Your task to perform on an android device: Open calendar and show me the third week of next month Image 0: 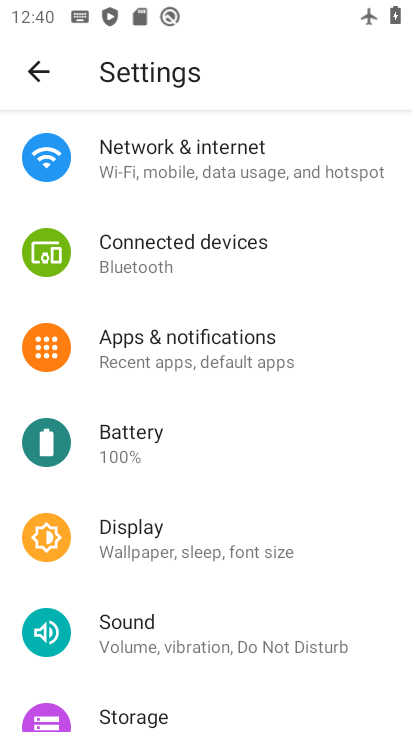
Step 0: press home button
Your task to perform on an android device: Open calendar and show me the third week of next month Image 1: 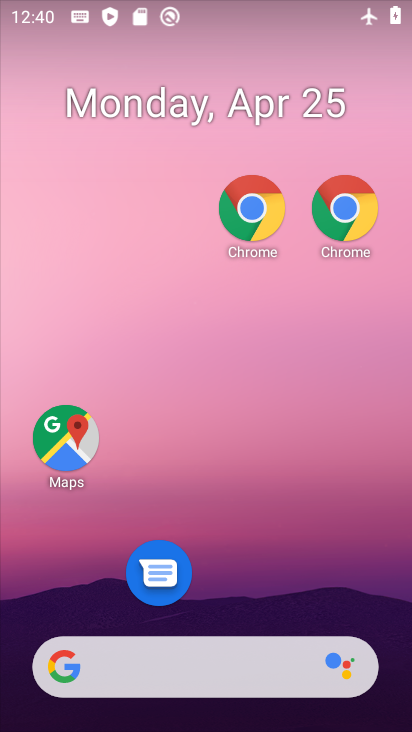
Step 1: drag from (281, 675) to (182, 15)
Your task to perform on an android device: Open calendar and show me the third week of next month Image 2: 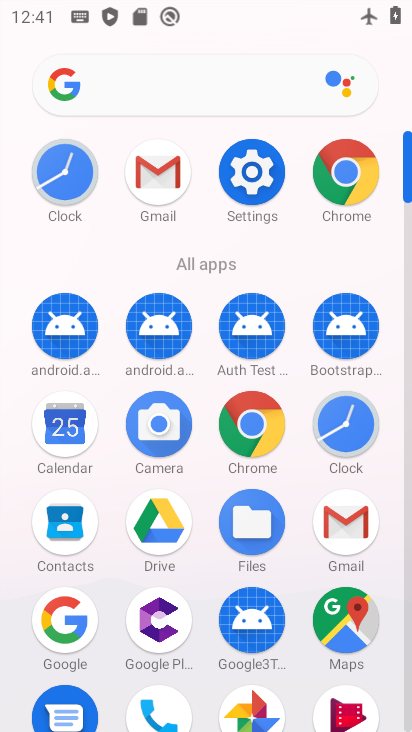
Step 2: click (62, 446)
Your task to perform on an android device: Open calendar and show me the third week of next month Image 3: 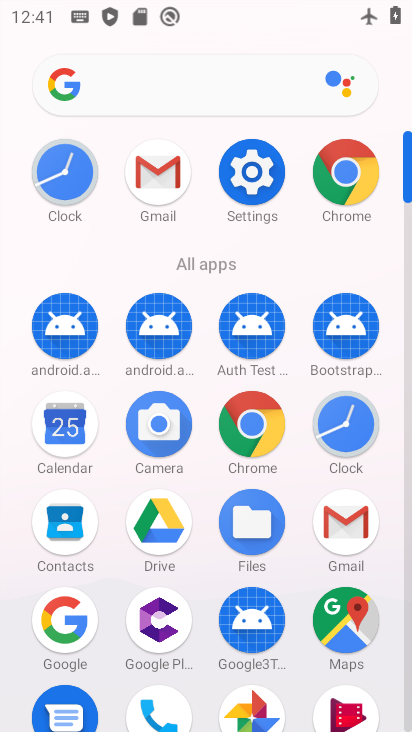
Step 3: click (62, 446)
Your task to perform on an android device: Open calendar and show me the third week of next month Image 4: 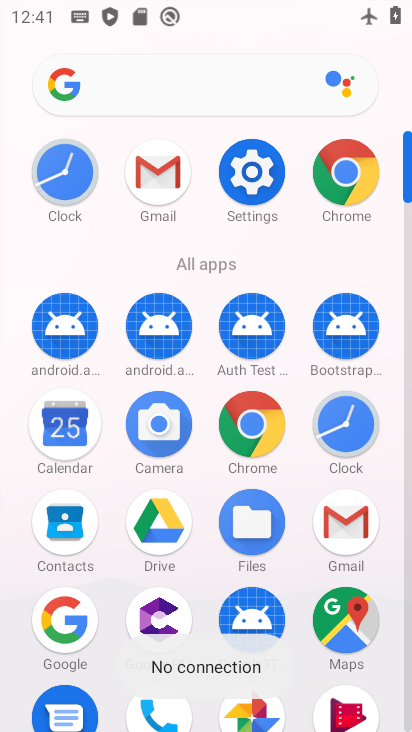
Step 4: click (66, 436)
Your task to perform on an android device: Open calendar and show me the third week of next month Image 5: 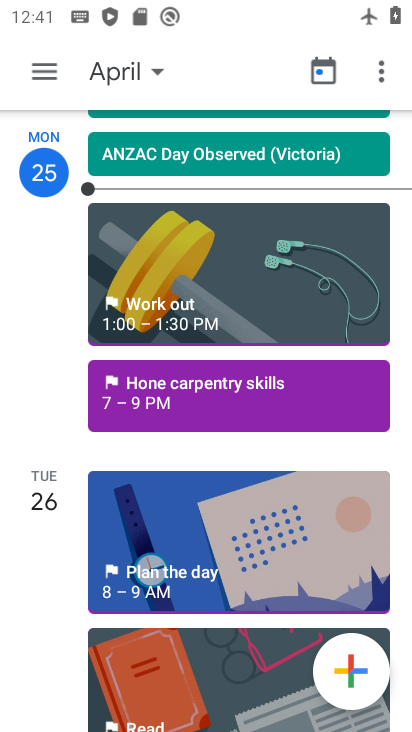
Step 5: drag from (156, 71) to (143, 500)
Your task to perform on an android device: Open calendar and show me the third week of next month Image 6: 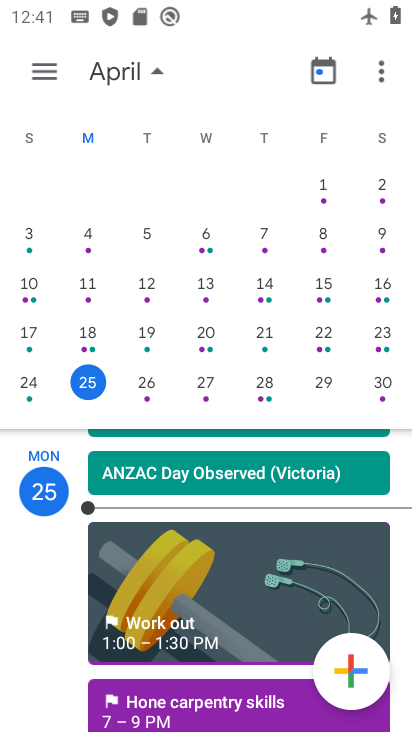
Step 6: drag from (266, 342) to (93, 363)
Your task to perform on an android device: Open calendar and show me the third week of next month Image 7: 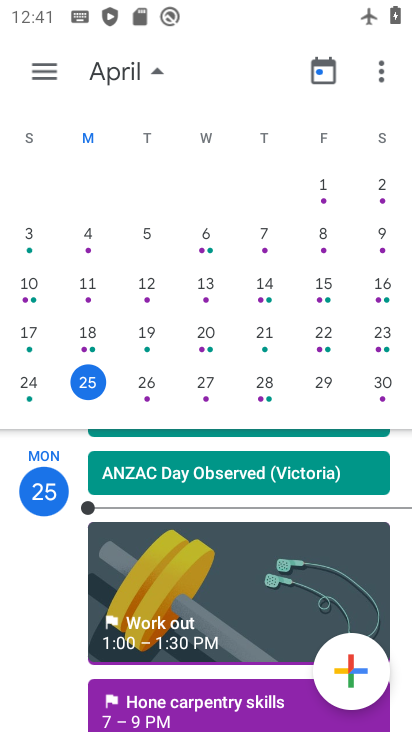
Step 7: drag from (277, 338) to (32, 373)
Your task to perform on an android device: Open calendar and show me the third week of next month Image 8: 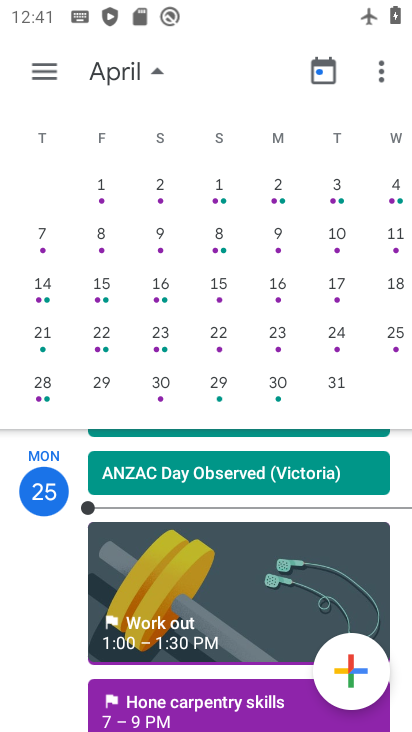
Step 8: drag from (247, 328) to (121, 403)
Your task to perform on an android device: Open calendar and show me the third week of next month Image 9: 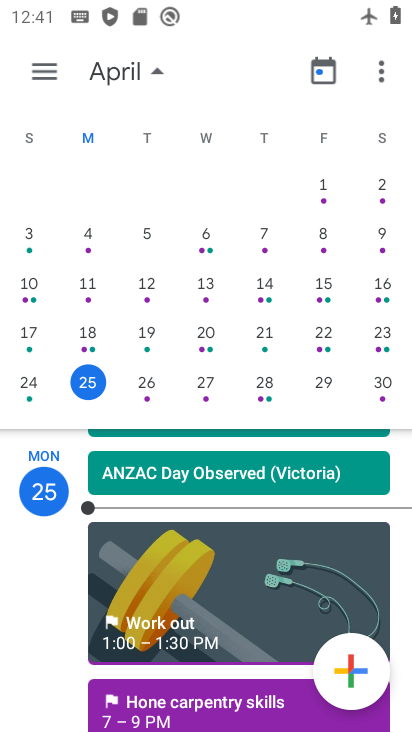
Step 9: drag from (174, 330) to (18, 339)
Your task to perform on an android device: Open calendar and show me the third week of next month Image 10: 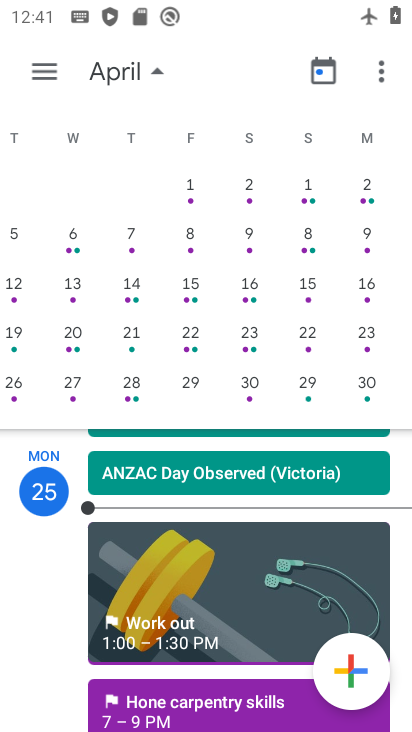
Step 10: drag from (213, 329) to (30, 382)
Your task to perform on an android device: Open calendar and show me the third week of next month Image 11: 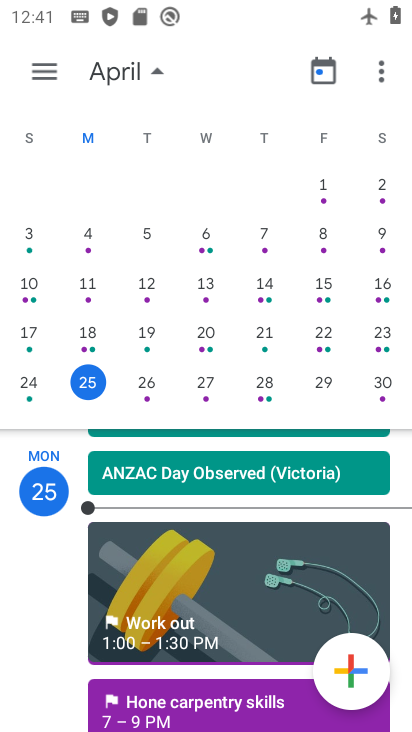
Step 11: drag from (194, 337) to (79, 393)
Your task to perform on an android device: Open calendar and show me the third week of next month Image 12: 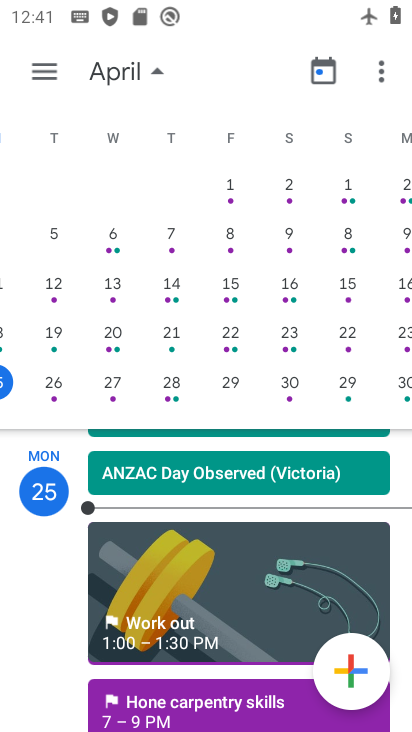
Step 12: drag from (333, 289) to (59, 328)
Your task to perform on an android device: Open calendar and show me the third week of next month Image 13: 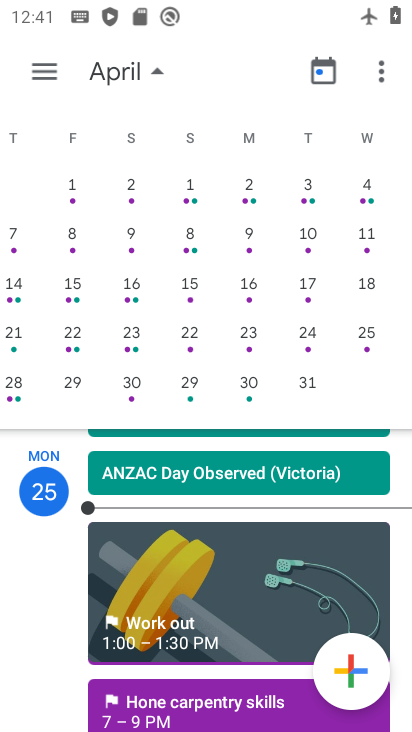
Step 13: drag from (141, 329) to (36, 306)
Your task to perform on an android device: Open calendar and show me the third week of next month Image 14: 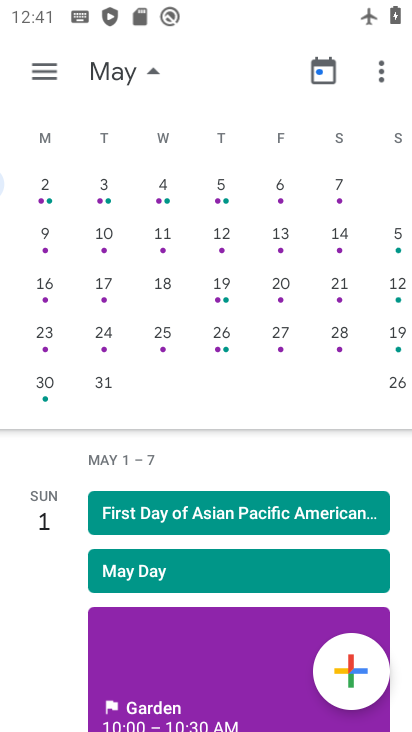
Step 14: drag from (387, 301) to (122, 233)
Your task to perform on an android device: Open calendar and show me the third week of next month Image 15: 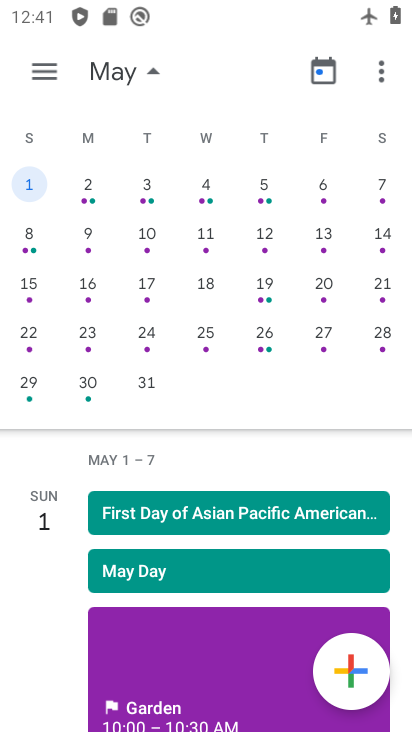
Step 15: click (85, 284)
Your task to perform on an android device: Open calendar and show me the third week of next month Image 16: 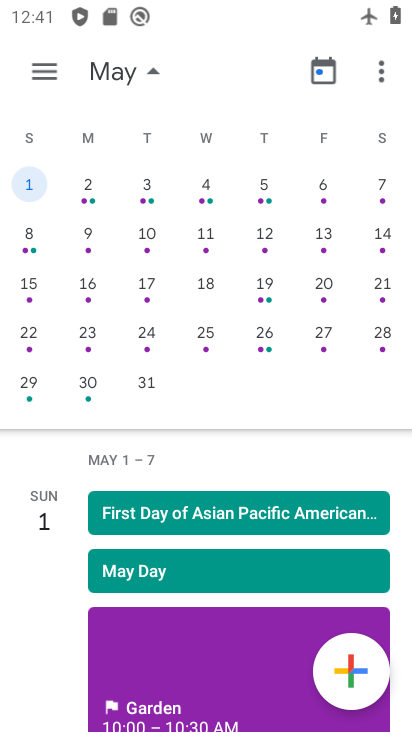
Step 16: click (79, 279)
Your task to perform on an android device: Open calendar and show me the third week of next month Image 17: 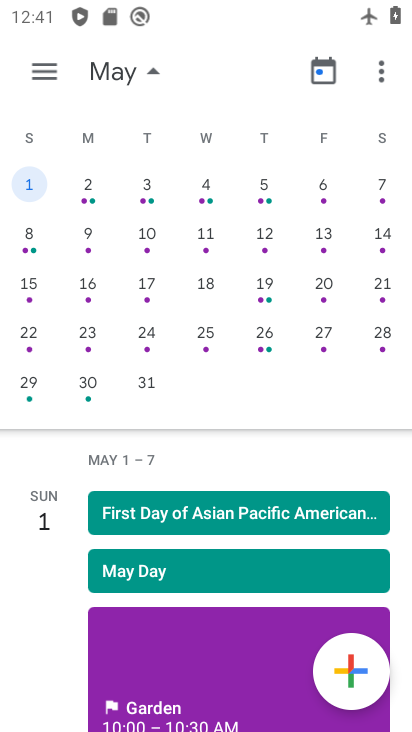
Step 17: click (79, 279)
Your task to perform on an android device: Open calendar and show me the third week of next month Image 18: 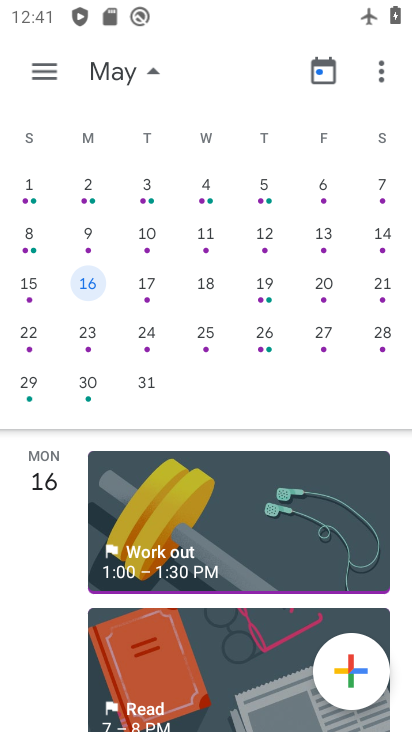
Step 18: click (81, 283)
Your task to perform on an android device: Open calendar and show me the third week of next month Image 19: 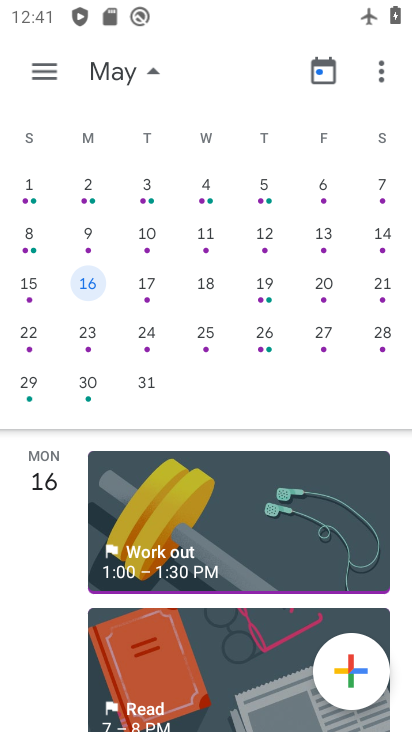
Step 19: task complete